Your task to perform on an android device: Open Chrome and go to settings Image 0: 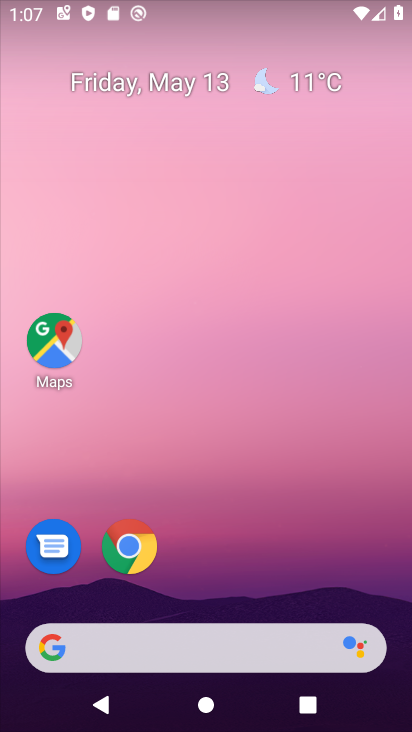
Step 0: drag from (262, 585) to (287, 211)
Your task to perform on an android device: Open Chrome and go to settings Image 1: 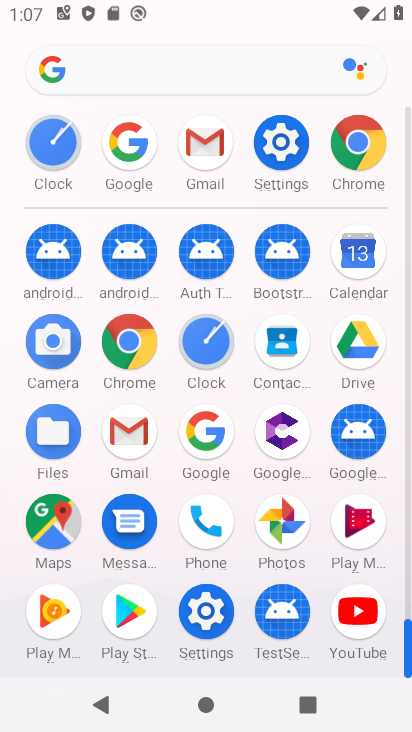
Step 1: click (342, 165)
Your task to perform on an android device: Open Chrome and go to settings Image 2: 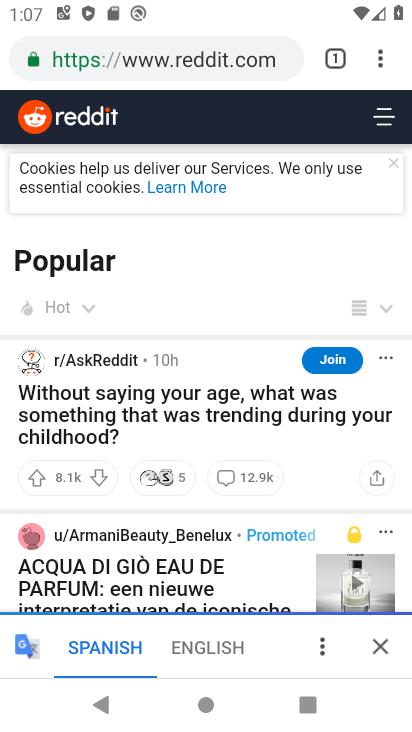
Step 2: click (381, 42)
Your task to perform on an android device: Open Chrome and go to settings Image 3: 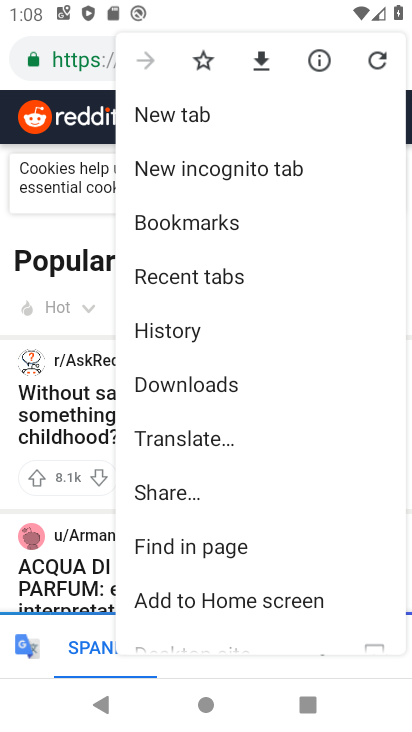
Step 3: drag from (208, 529) to (250, 282)
Your task to perform on an android device: Open Chrome and go to settings Image 4: 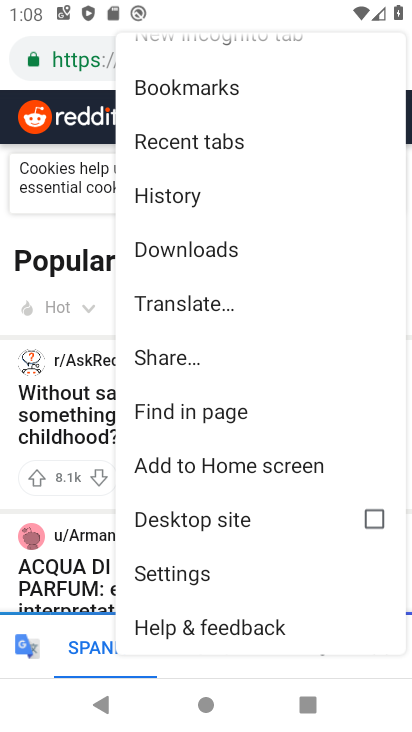
Step 4: click (234, 572)
Your task to perform on an android device: Open Chrome and go to settings Image 5: 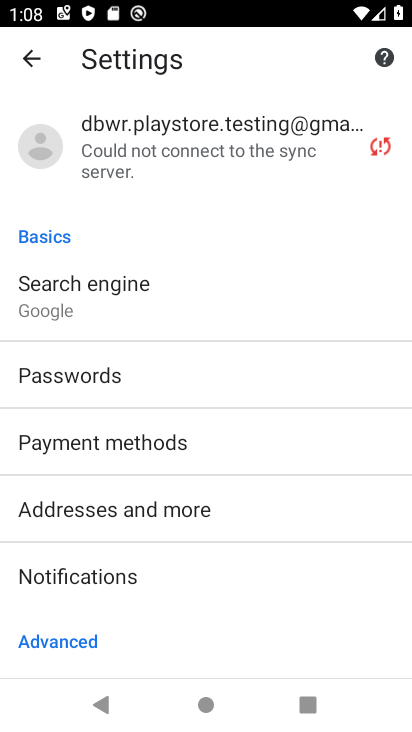
Step 5: task complete